Your task to perform on an android device: delete a single message in the gmail app Image 0: 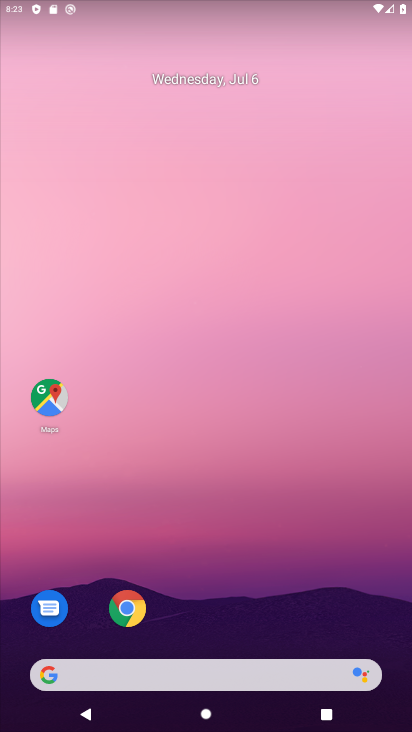
Step 0: drag from (188, 645) to (186, 190)
Your task to perform on an android device: delete a single message in the gmail app Image 1: 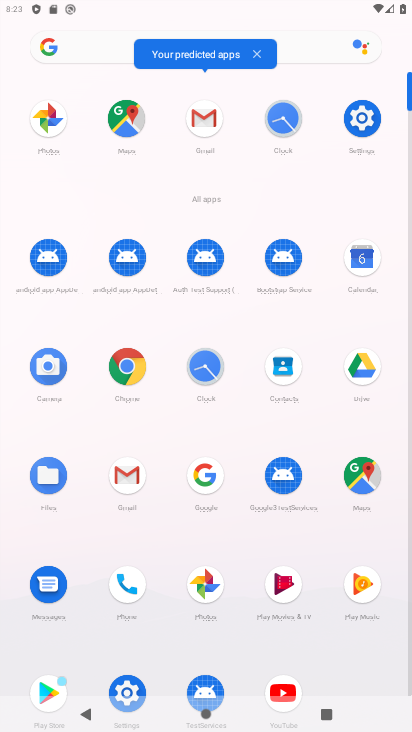
Step 1: click (199, 114)
Your task to perform on an android device: delete a single message in the gmail app Image 2: 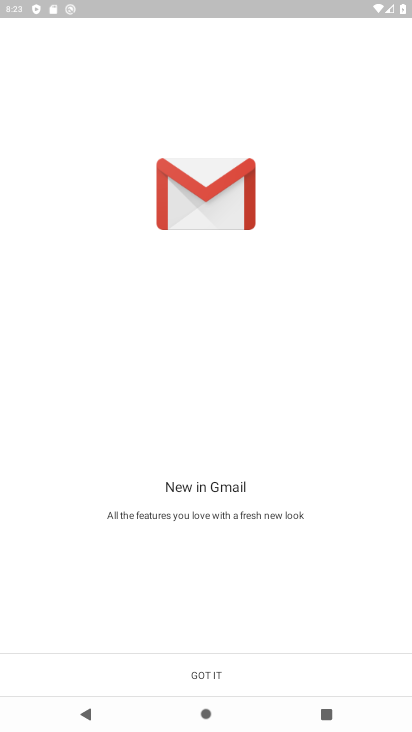
Step 2: click (213, 675)
Your task to perform on an android device: delete a single message in the gmail app Image 3: 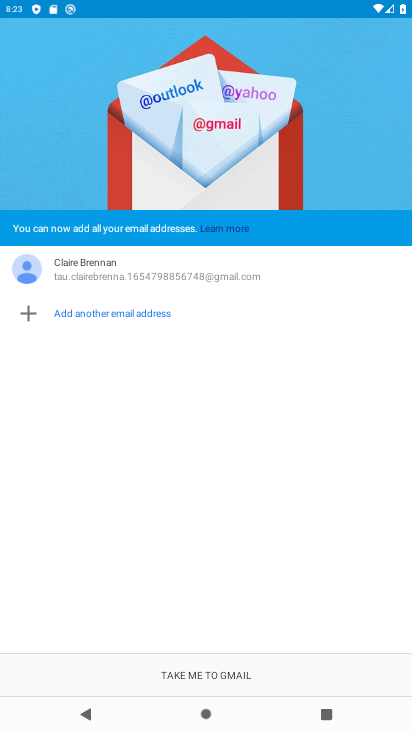
Step 3: click (213, 675)
Your task to perform on an android device: delete a single message in the gmail app Image 4: 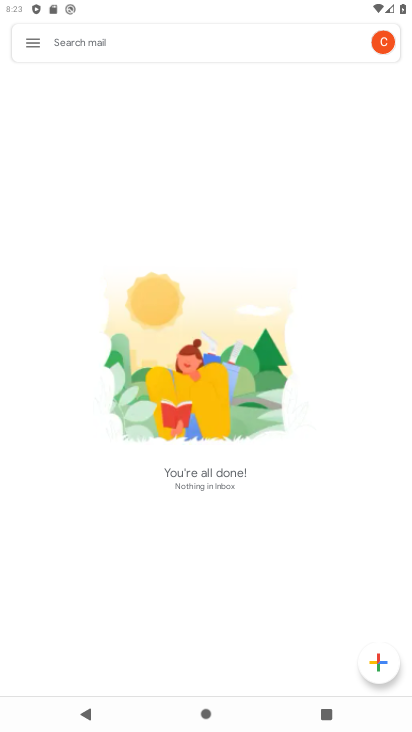
Step 4: task complete